Your task to perform on an android device: Open Yahoo.com Image 0: 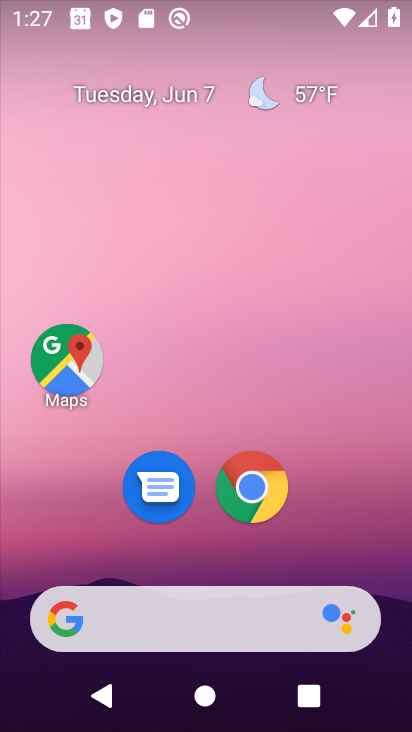
Step 0: click (249, 487)
Your task to perform on an android device: Open Yahoo.com Image 1: 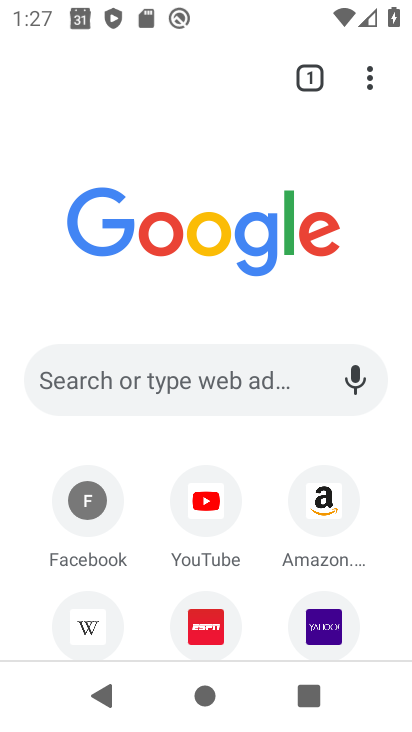
Step 1: click (219, 383)
Your task to perform on an android device: Open Yahoo.com Image 2: 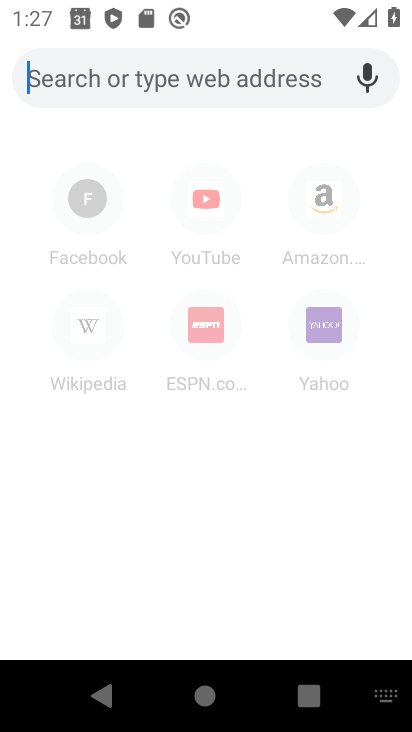
Step 2: type "Yahoo.com"
Your task to perform on an android device: Open Yahoo.com Image 3: 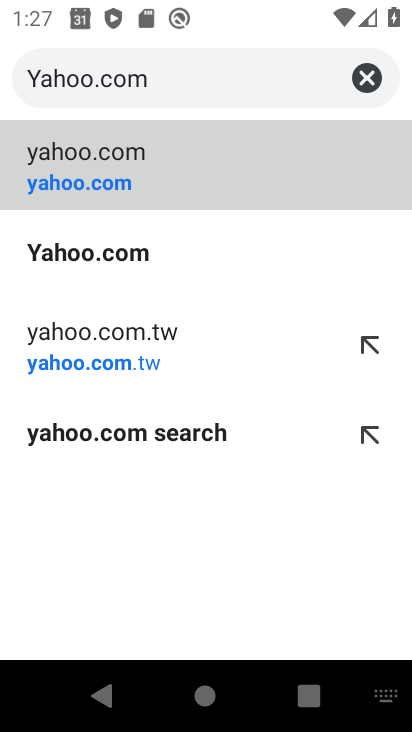
Step 3: click (122, 258)
Your task to perform on an android device: Open Yahoo.com Image 4: 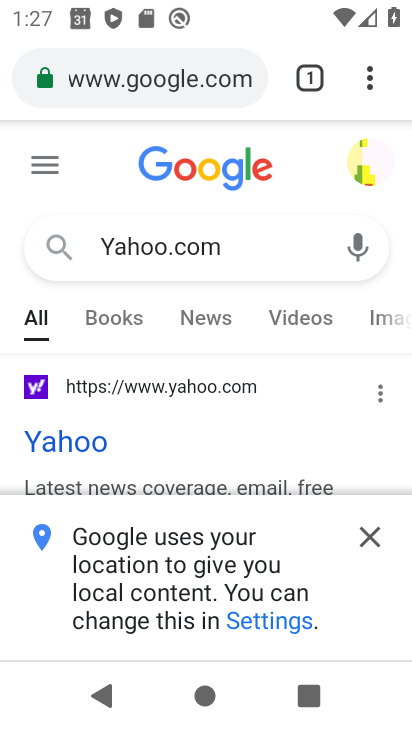
Step 4: click (232, 383)
Your task to perform on an android device: Open Yahoo.com Image 5: 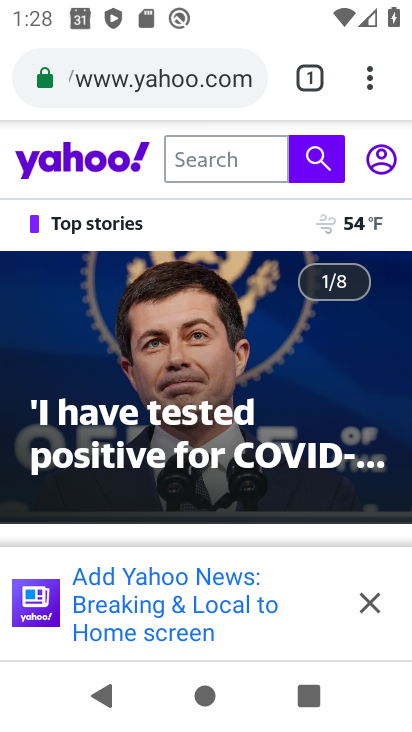
Step 5: task complete